Your task to perform on an android device: Search for Italian restaurants on Maps Image 0: 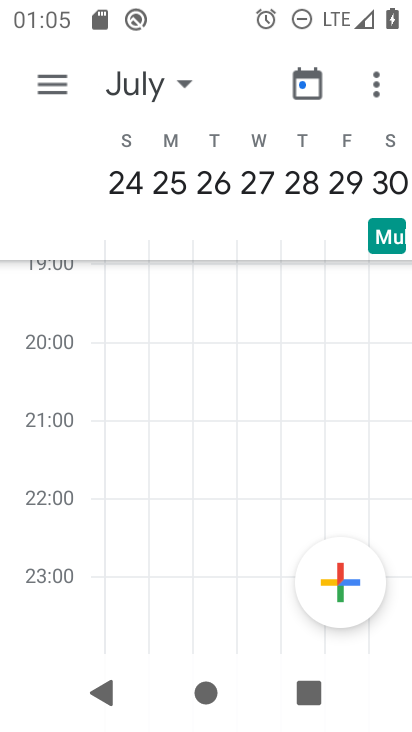
Step 0: press home button
Your task to perform on an android device: Search for Italian restaurants on Maps Image 1: 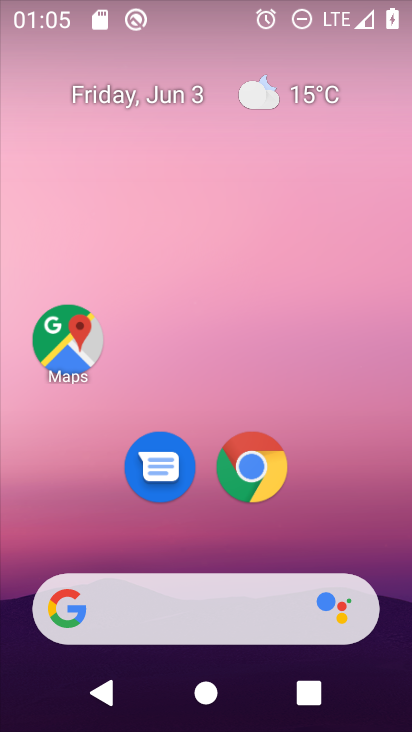
Step 1: click (67, 342)
Your task to perform on an android device: Search for Italian restaurants on Maps Image 2: 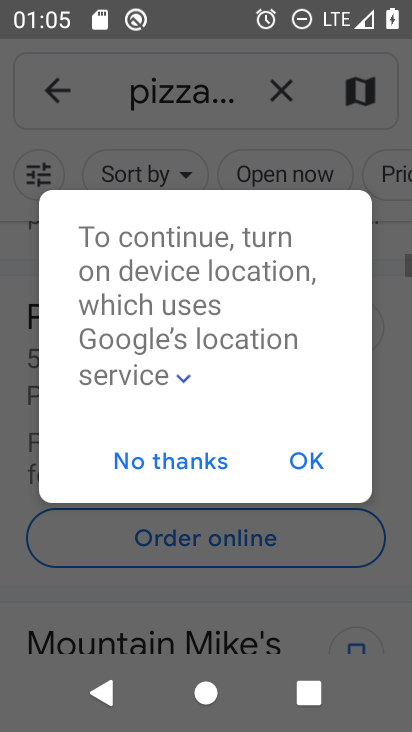
Step 2: click (276, 94)
Your task to perform on an android device: Search for Italian restaurants on Maps Image 3: 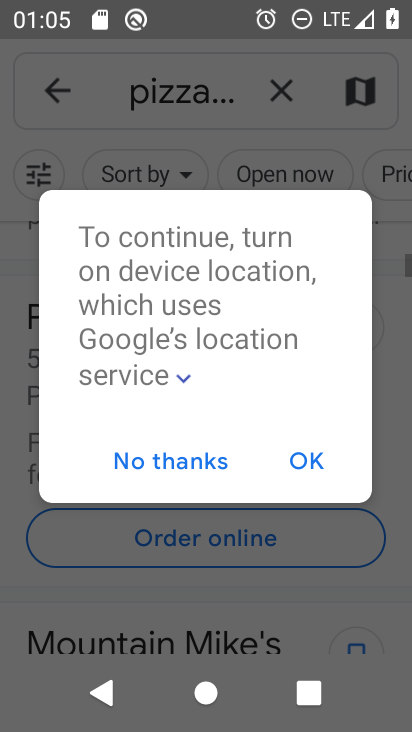
Step 3: click (310, 463)
Your task to perform on an android device: Search for Italian restaurants on Maps Image 4: 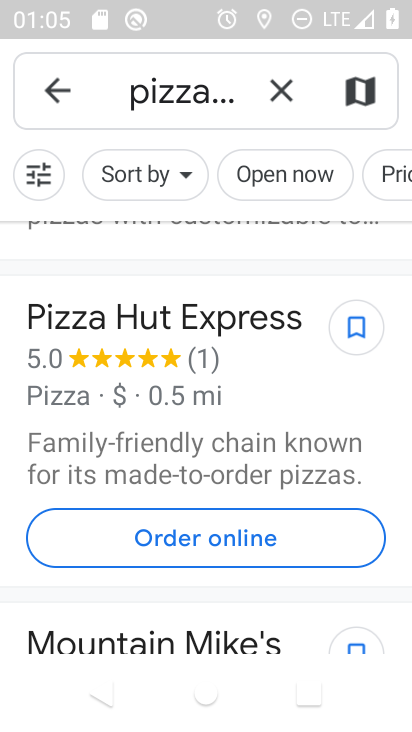
Step 4: click (281, 84)
Your task to perform on an android device: Search for Italian restaurants on Maps Image 5: 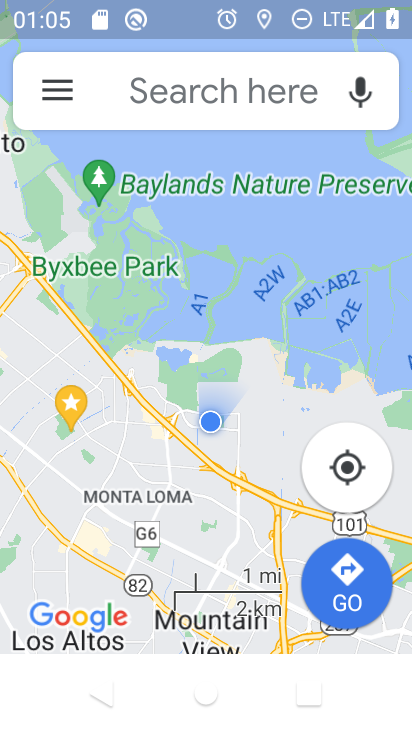
Step 5: click (200, 82)
Your task to perform on an android device: Search for Italian restaurants on Maps Image 6: 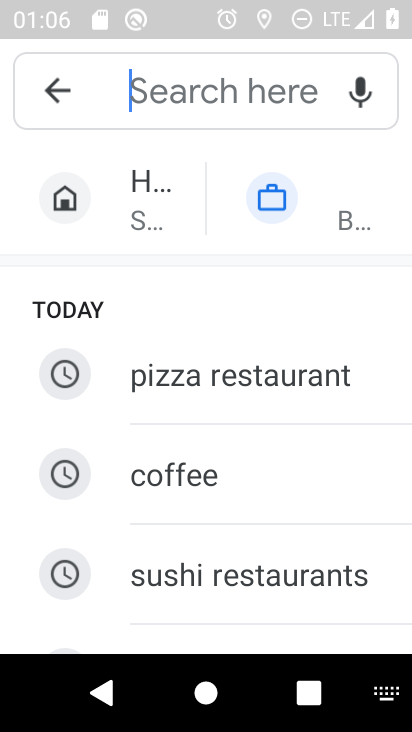
Step 6: type "italian restaurants"
Your task to perform on an android device: Search for Italian restaurants on Maps Image 7: 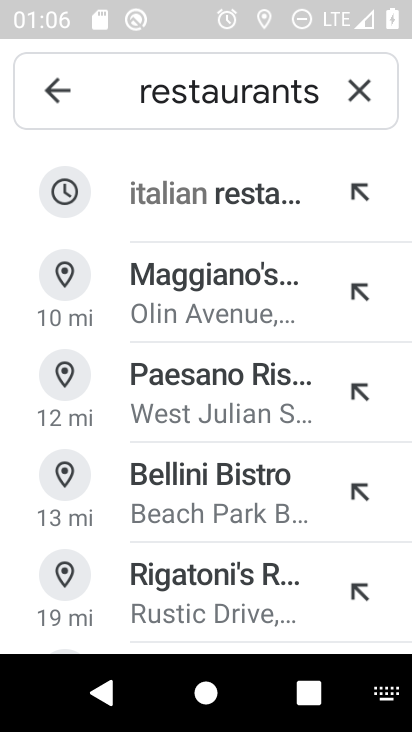
Step 7: click (212, 180)
Your task to perform on an android device: Search for Italian restaurants on Maps Image 8: 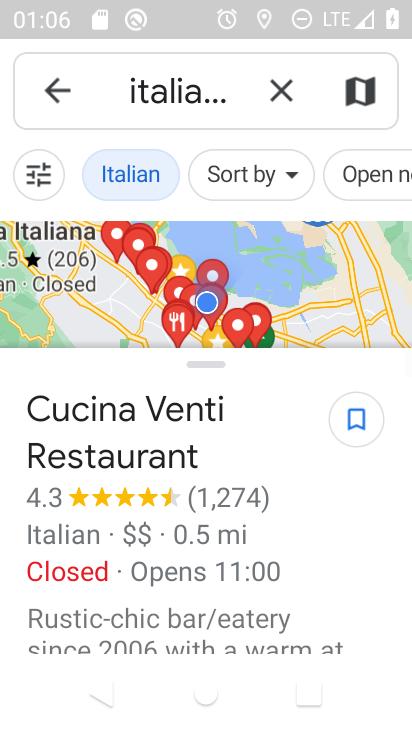
Step 8: task complete